Your task to perform on an android device: Play the last video I watched on Youtube Image 0: 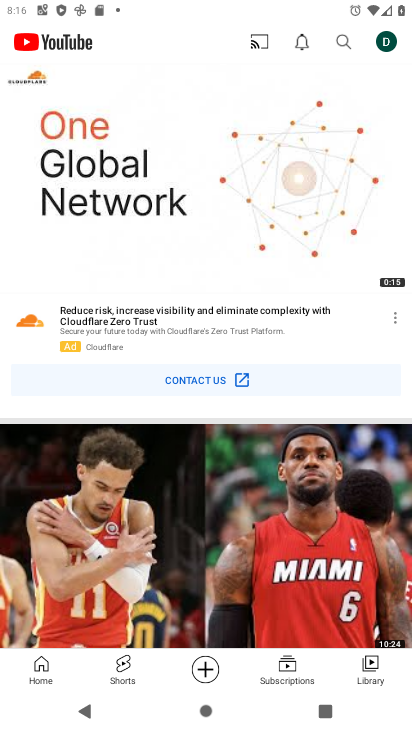
Step 0: press home button
Your task to perform on an android device: Play the last video I watched on Youtube Image 1: 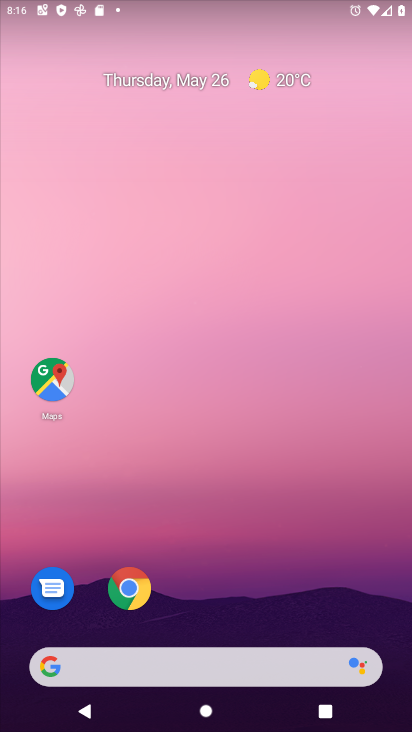
Step 1: drag from (393, 644) to (277, 78)
Your task to perform on an android device: Play the last video I watched on Youtube Image 2: 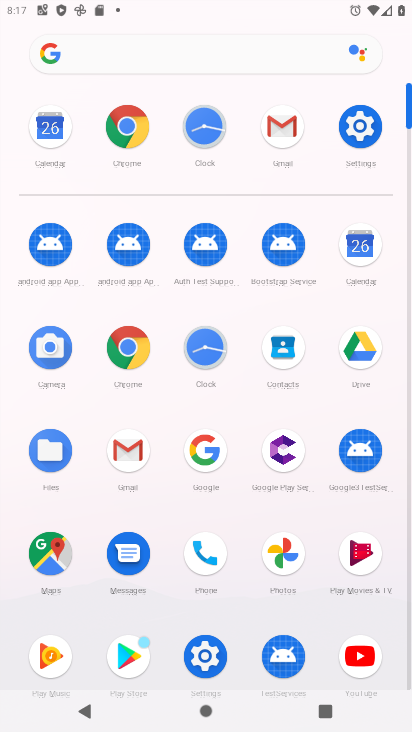
Step 2: click (373, 667)
Your task to perform on an android device: Play the last video I watched on Youtube Image 3: 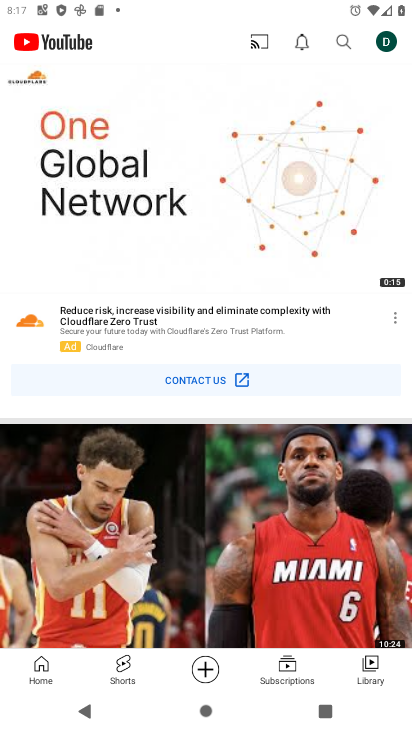
Step 3: click (376, 681)
Your task to perform on an android device: Play the last video I watched on Youtube Image 4: 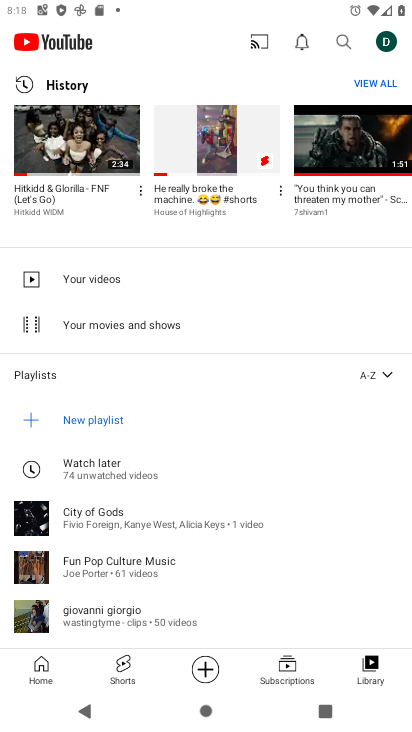
Step 4: click (81, 138)
Your task to perform on an android device: Play the last video I watched on Youtube Image 5: 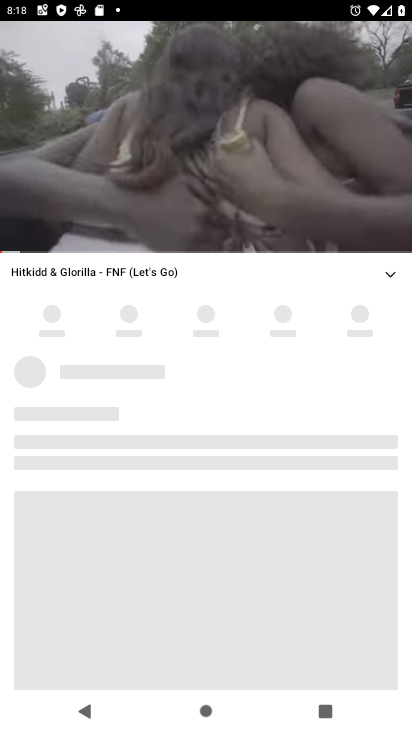
Step 5: click (203, 124)
Your task to perform on an android device: Play the last video I watched on Youtube Image 6: 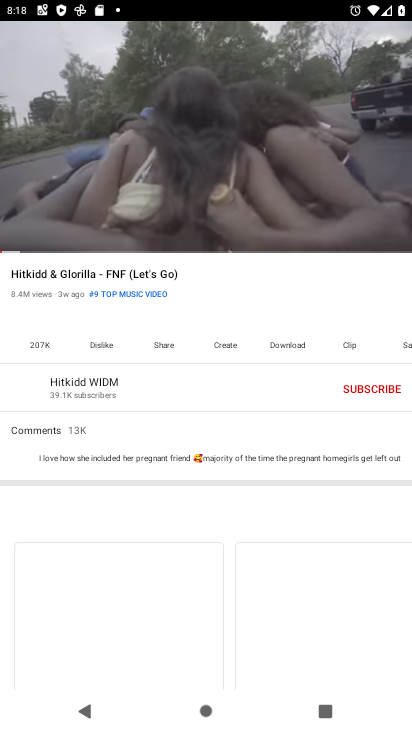
Step 6: click (203, 124)
Your task to perform on an android device: Play the last video I watched on Youtube Image 7: 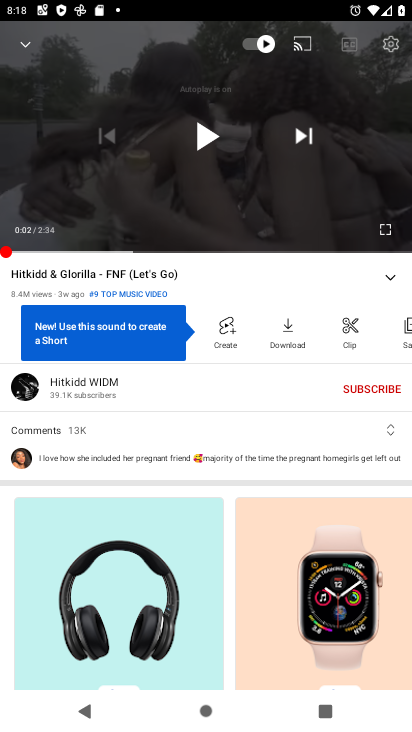
Step 7: task complete